Your task to perform on an android device: open app "YouTube Kids" (install if not already installed), go to login, and select forgot password Image 0: 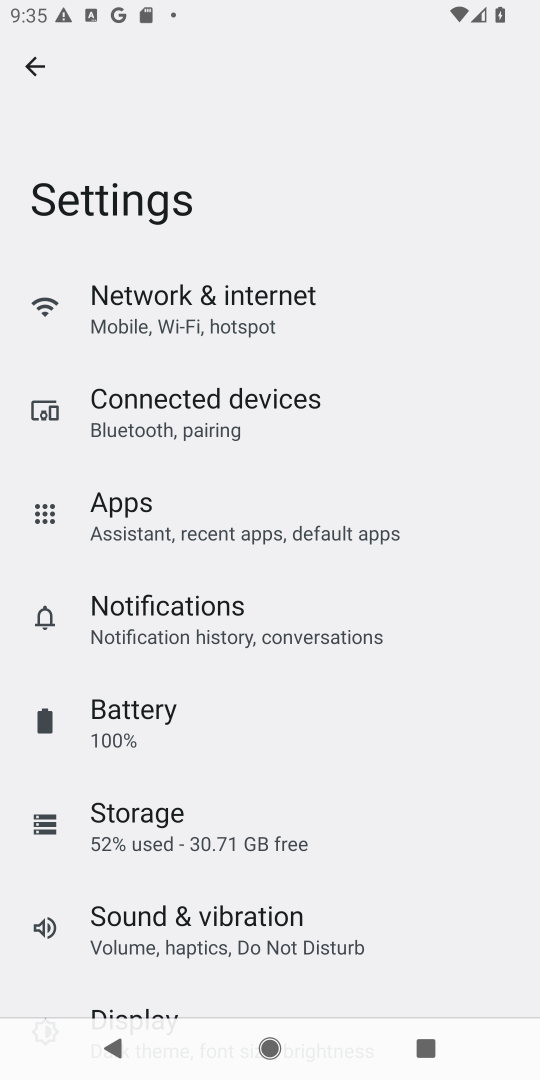
Step 0: press home button
Your task to perform on an android device: open app "YouTube Kids" (install if not already installed), go to login, and select forgot password Image 1: 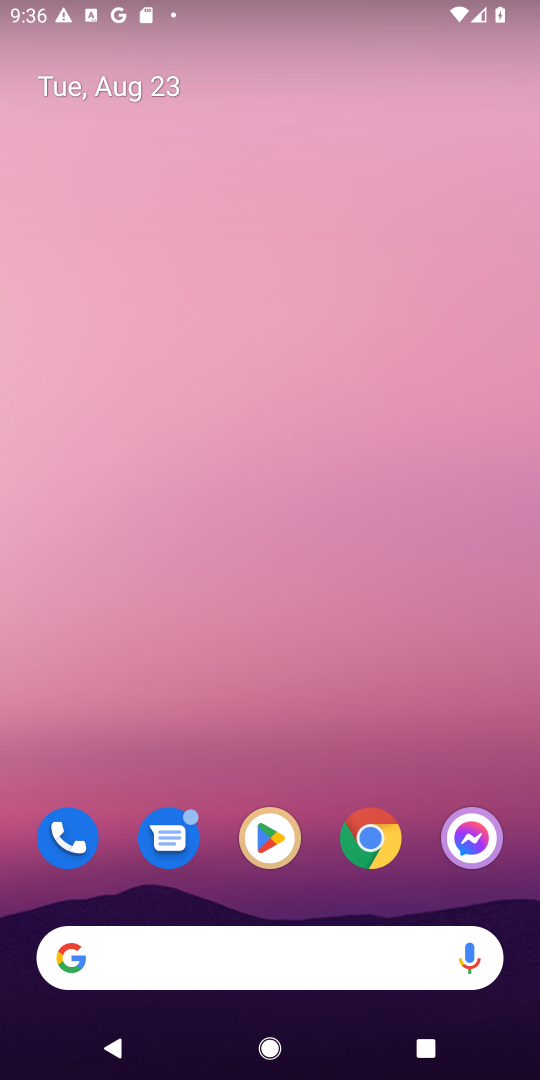
Step 1: click (263, 812)
Your task to perform on an android device: open app "YouTube Kids" (install if not already installed), go to login, and select forgot password Image 2: 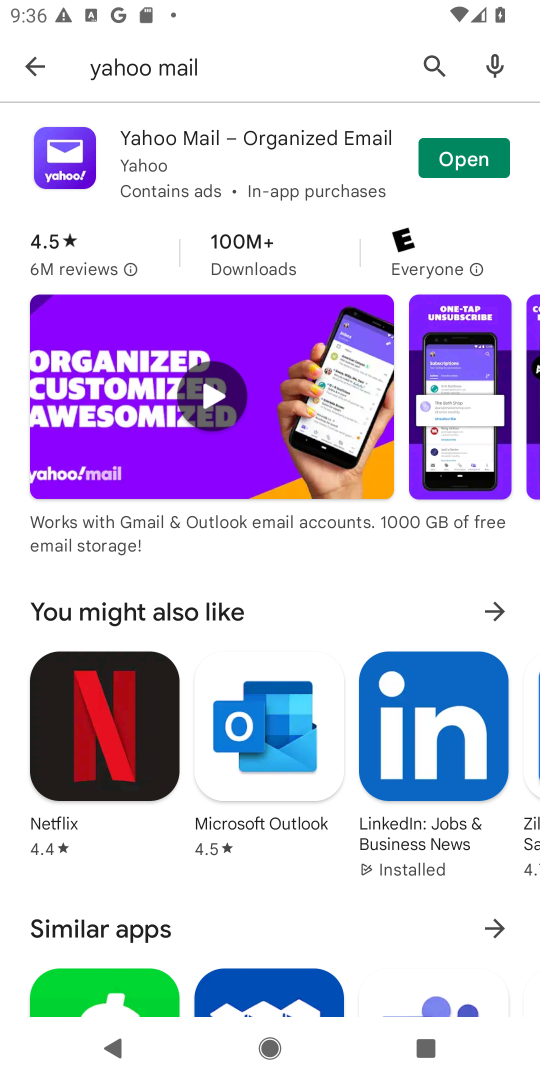
Step 2: click (428, 64)
Your task to perform on an android device: open app "YouTube Kids" (install if not already installed), go to login, and select forgot password Image 3: 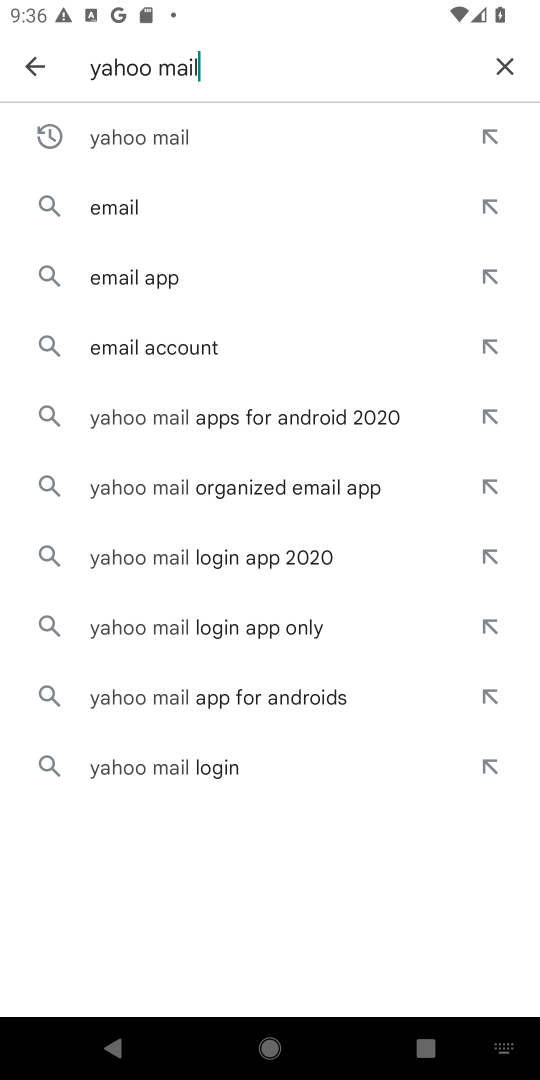
Step 3: click (504, 66)
Your task to perform on an android device: open app "YouTube Kids" (install if not already installed), go to login, and select forgot password Image 4: 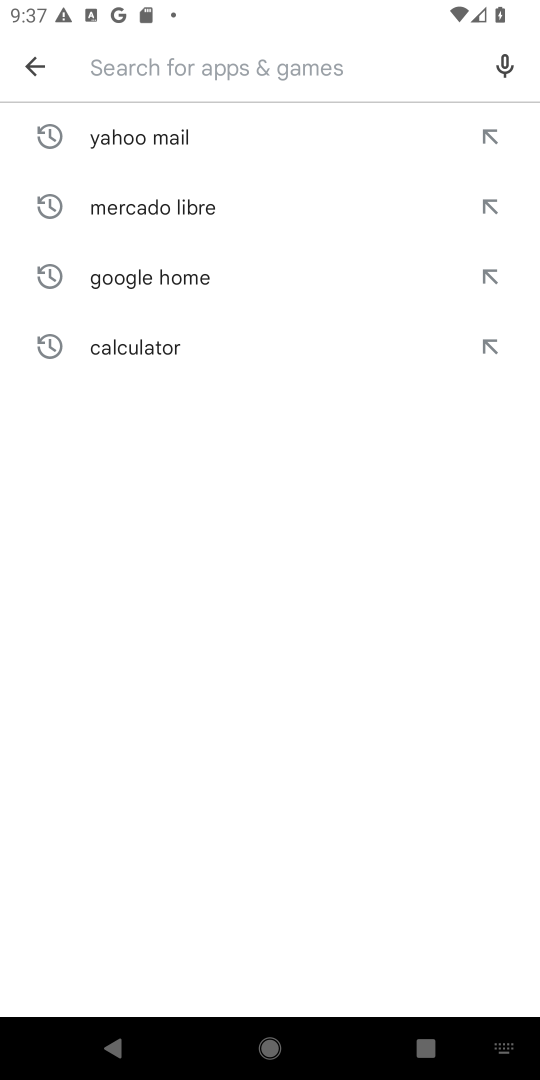
Step 4: type "YouTube Kids"
Your task to perform on an android device: open app "YouTube Kids" (install if not already installed), go to login, and select forgot password Image 5: 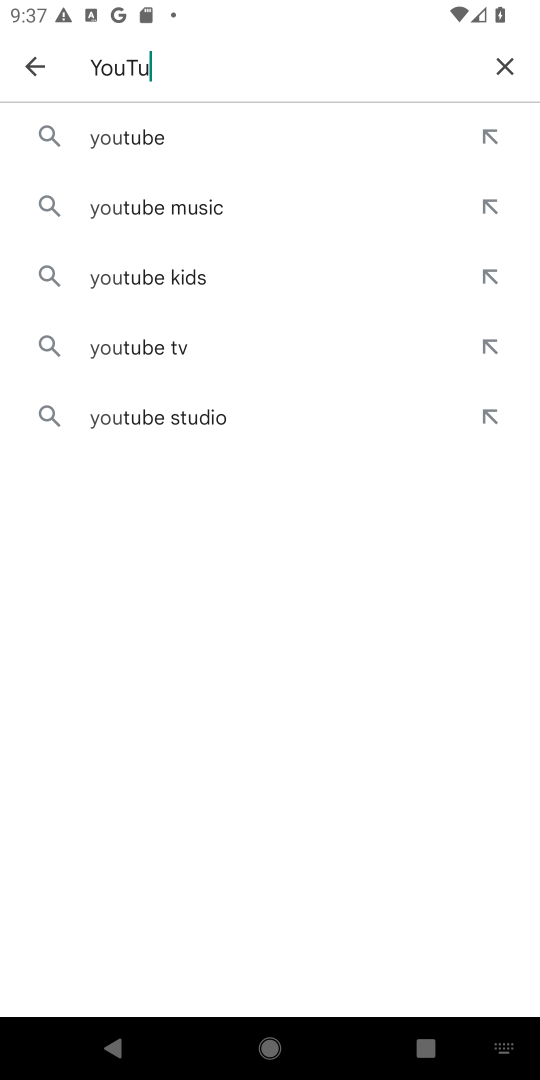
Step 5: type ""
Your task to perform on an android device: open app "YouTube Kids" (install if not already installed), go to login, and select forgot password Image 6: 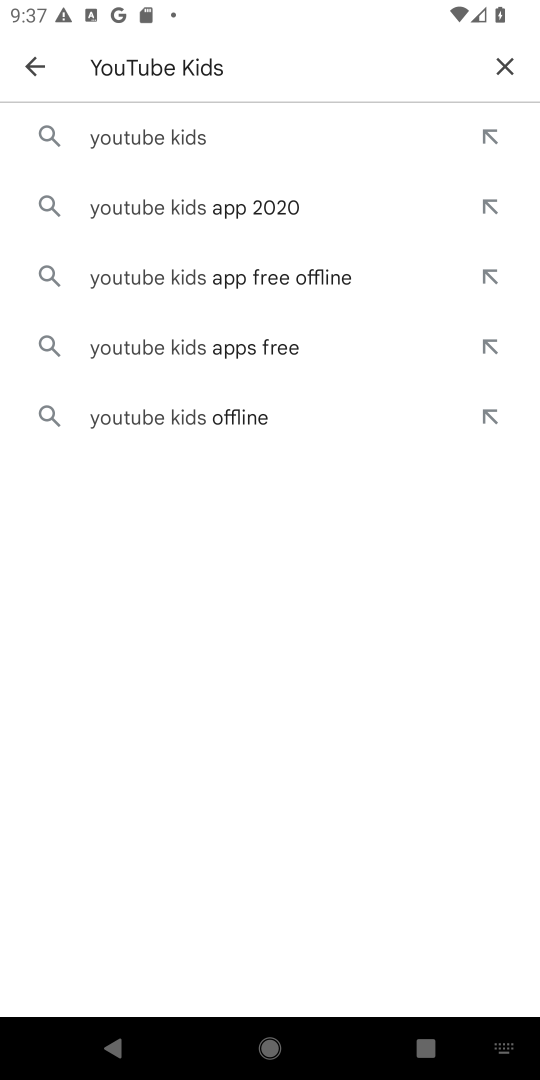
Step 6: click (210, 137)
Your task to perform on an android device: open app "YouTube Kids" (install if not already installed), go to login, and select forgot password Image 7: 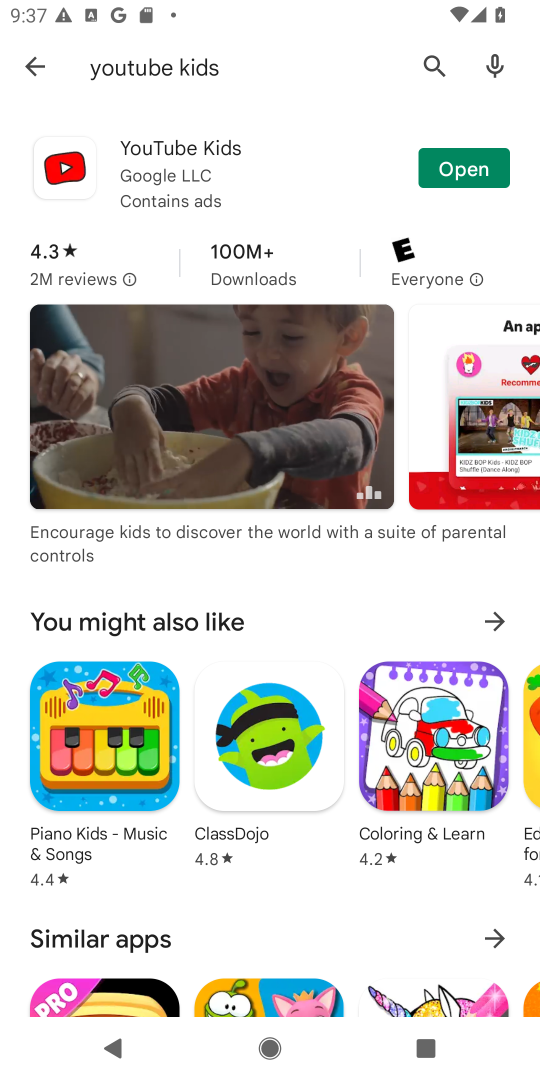
Step 7: click (452, 169)
Your task to perform on an android device: open app "YouTube Kids" (install if not already installed), go to login, and select forgot password Image 8: 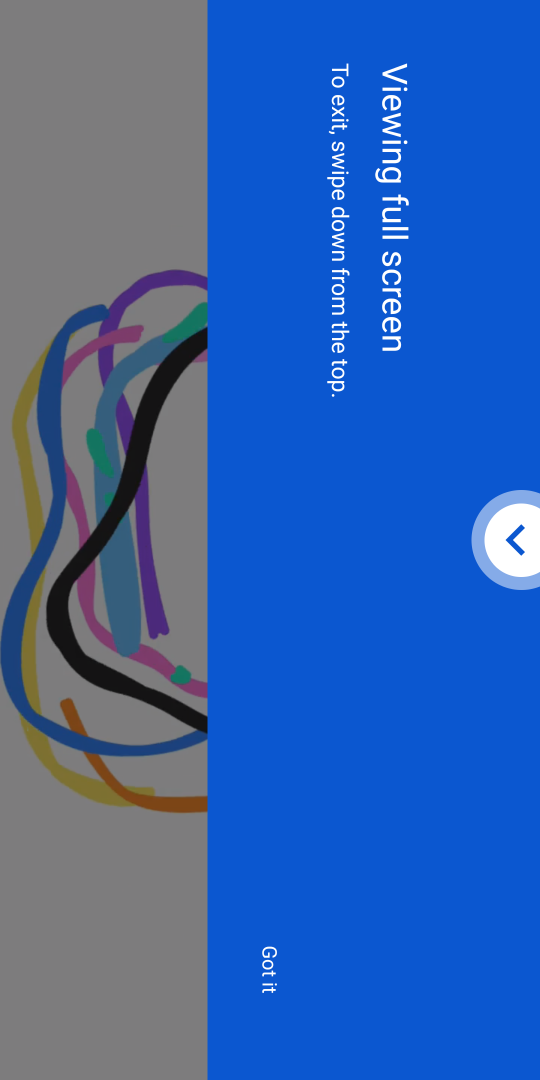
Step 8: task complete